Your task to perform on an android device: open app "TextNow: Call + Text Unlimited" (install if not already installed) Image 0: 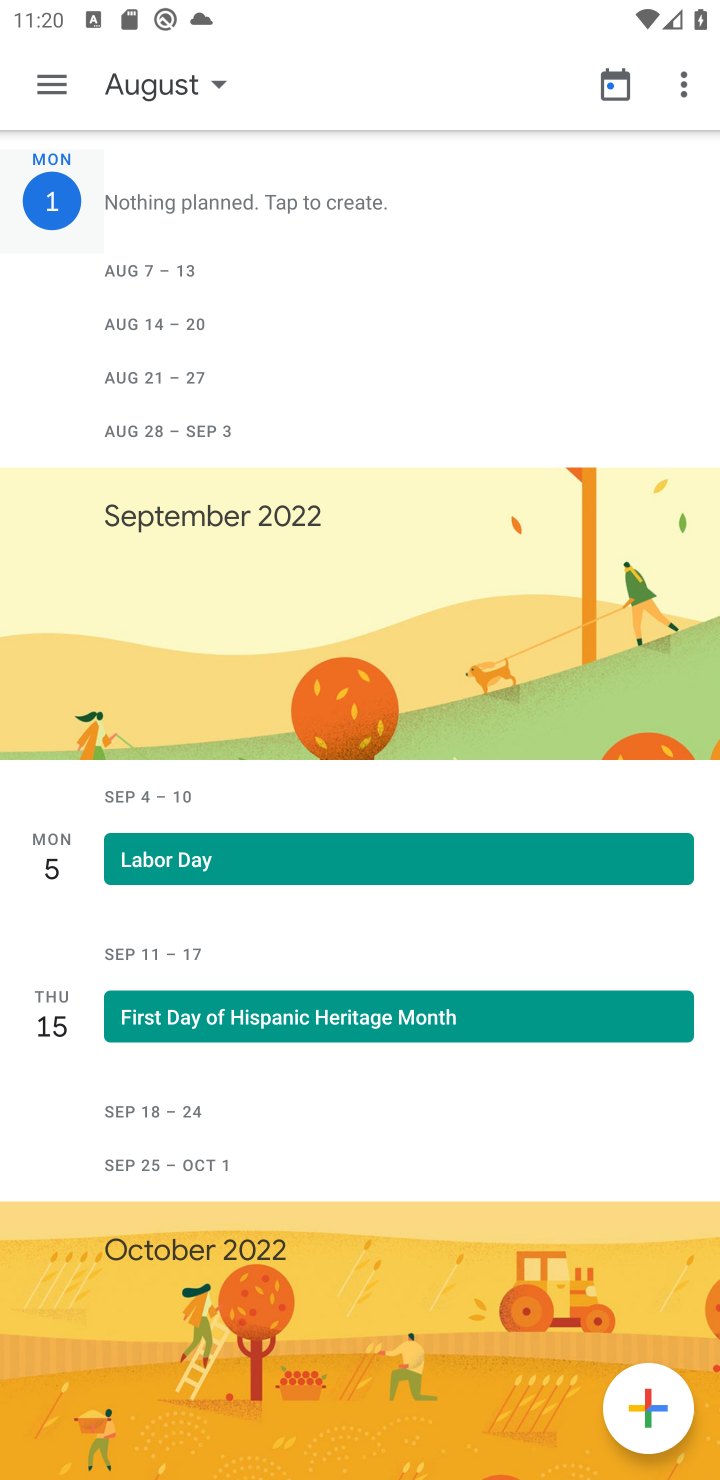
Step 0: press home button
Your task to perform on an android device: open app "TextNow: Call + Text Unlimited" (install if not already installed) Image 1: 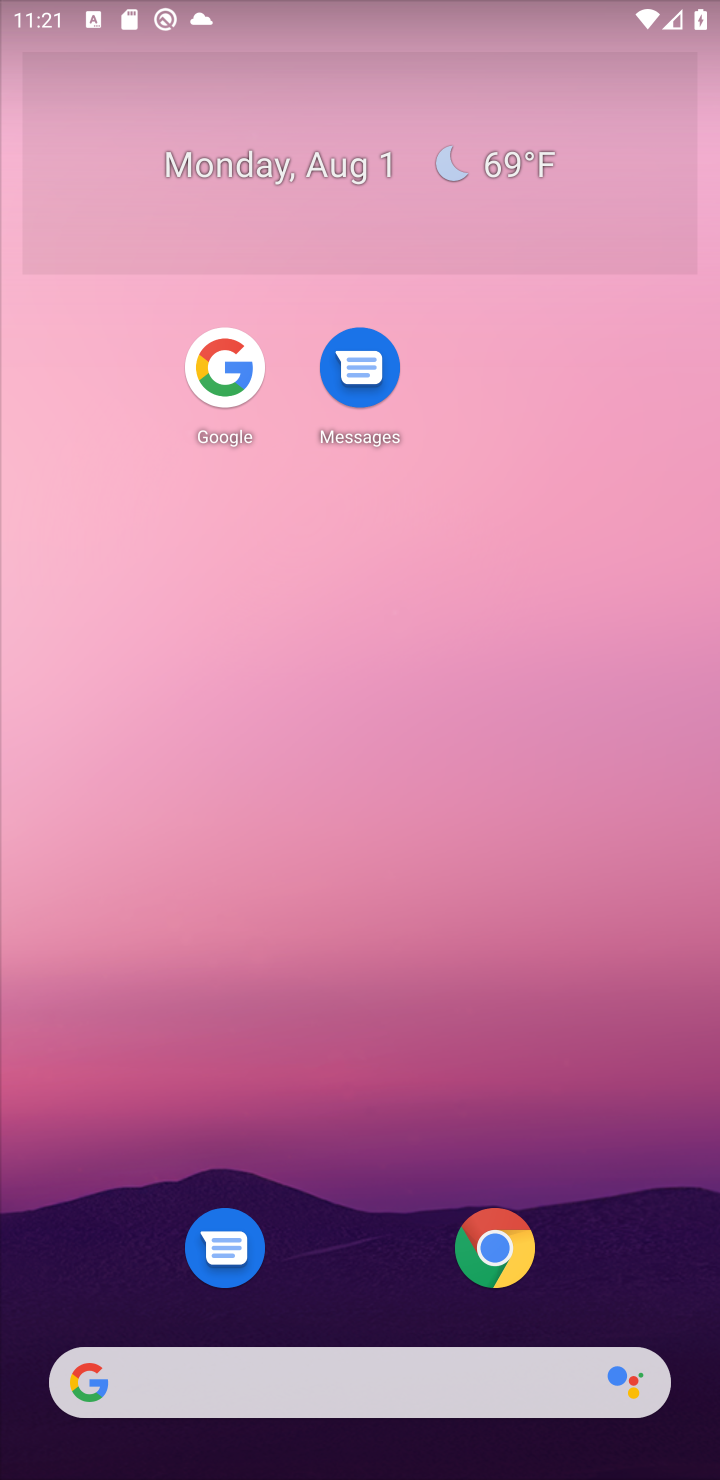
Step 1: drag from (372, 1144) to (476, 306)
Your task to perform on an android device: open app "TextNow: Call + Text Unlimited" (install if not already installed) Image 2: 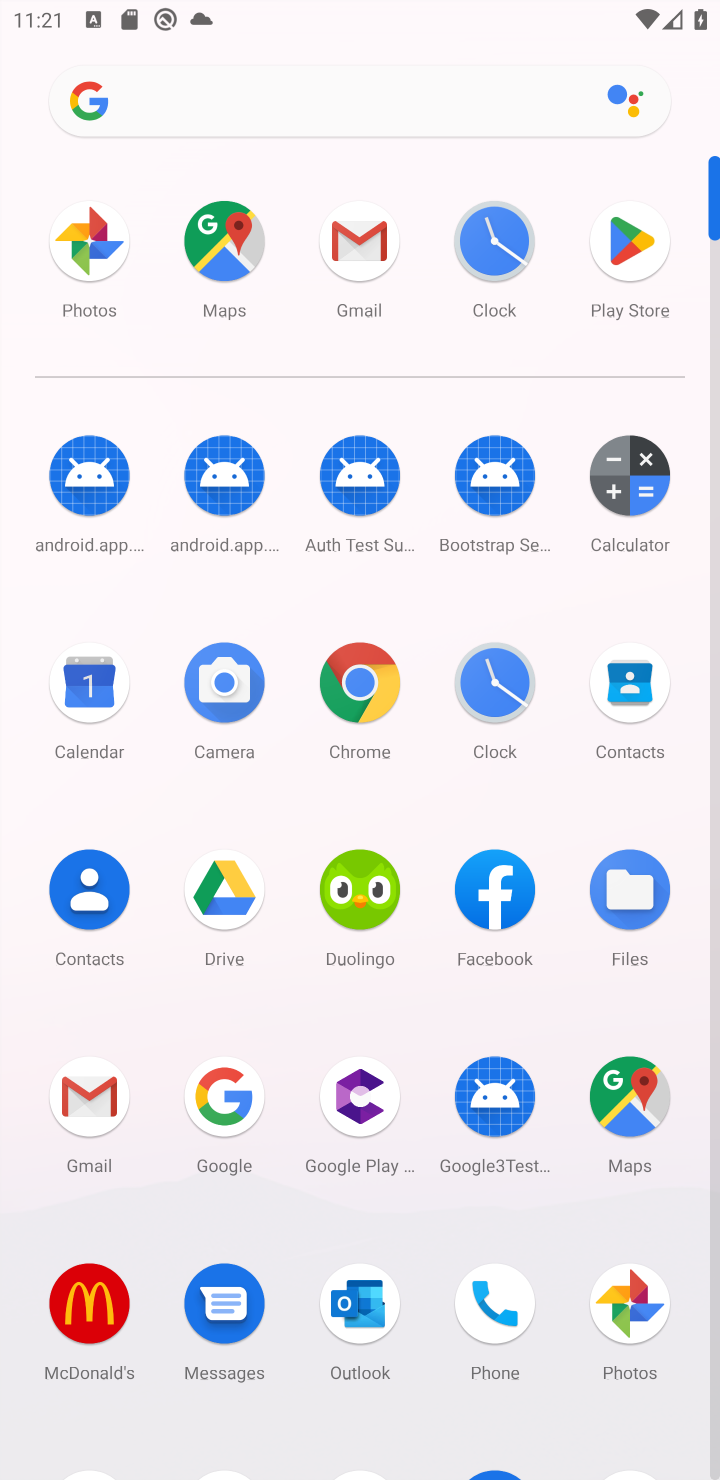
Step 2: drag from (287, 1213) to (314, 490)
Your task to perform on an android device: open app "TextNow: Call + Text Unlimited" (install if not already installed) Image 3: 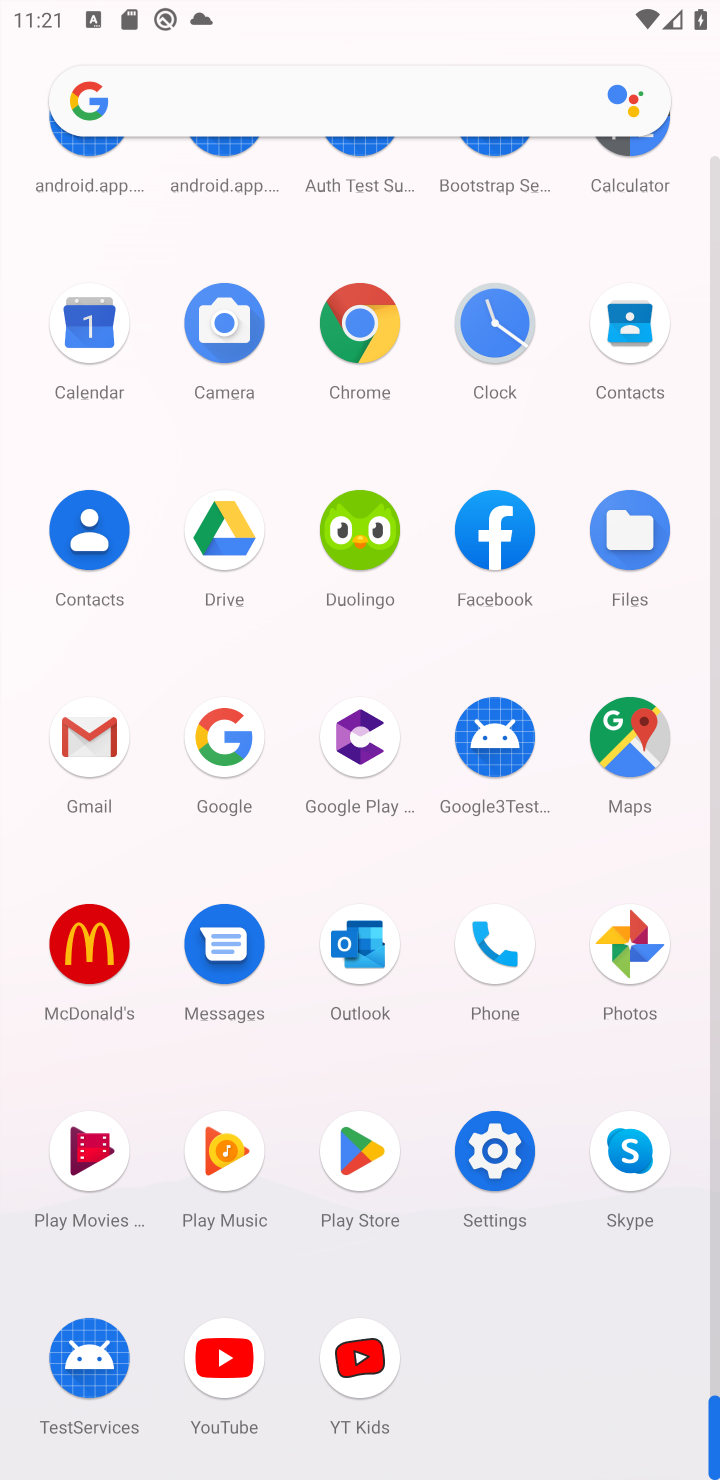
Step 3: click (356, 1151)
Your task to perform on an android device: open app "TextNow: Call + Text Unlimited" (install if not already installed) Image 4: 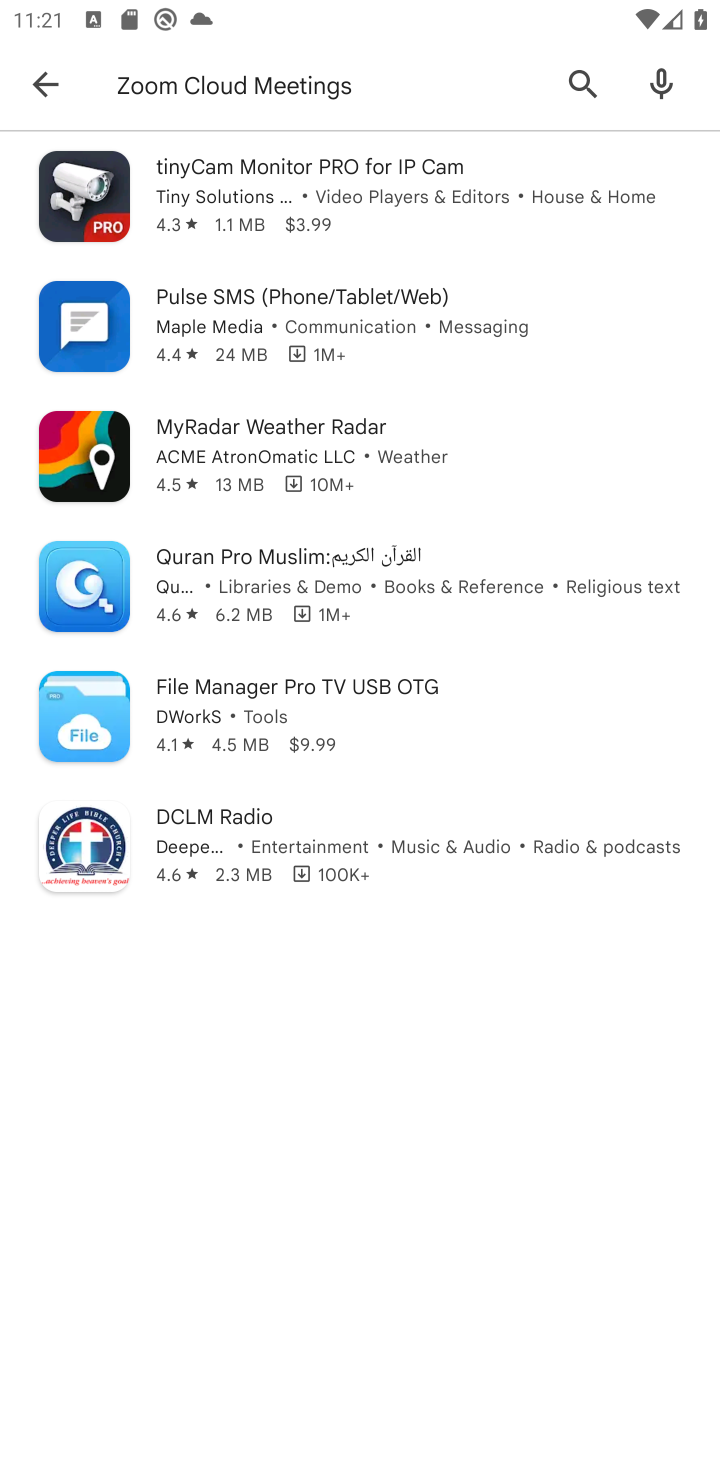
Step 4: click (416, 98)
Your task to perform on an android device: open app "TextNow: Call + Text Unlimited" (install if not already installed) Image 5: 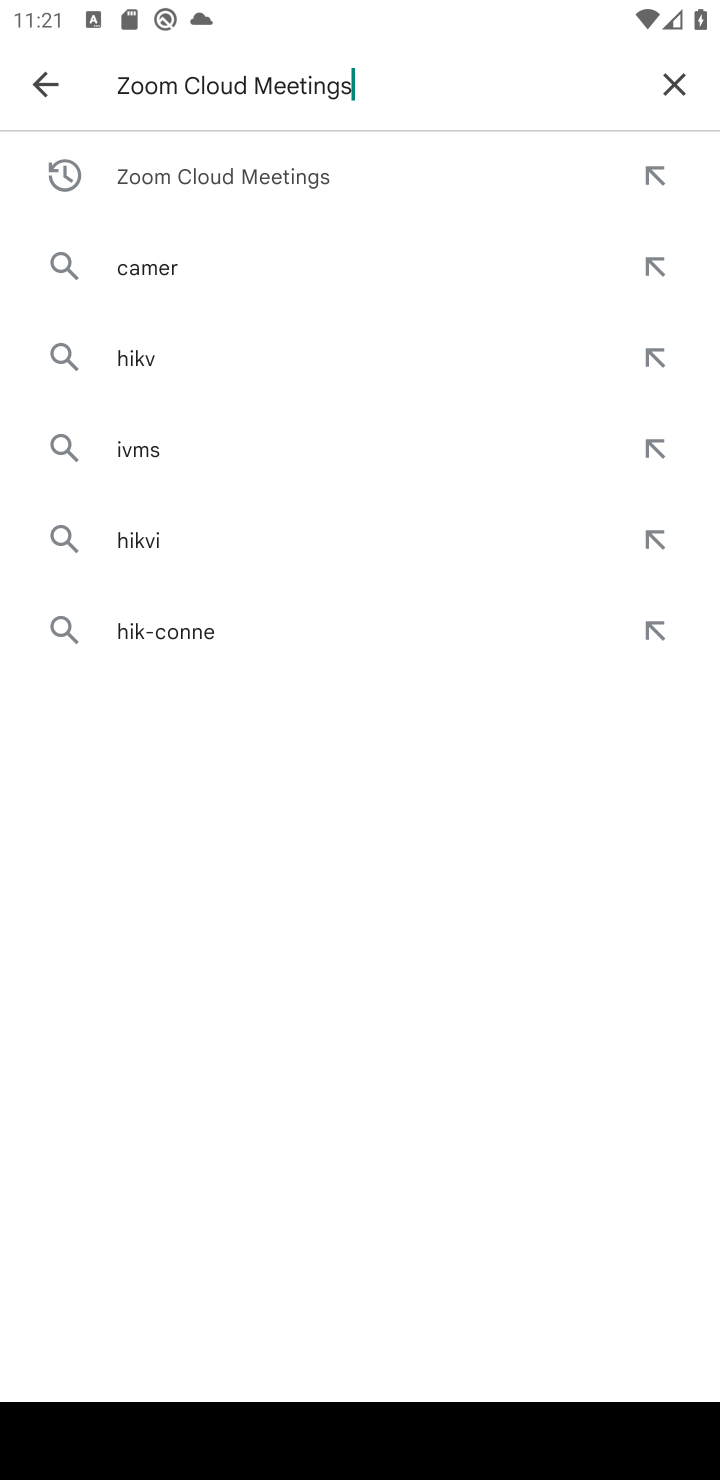
Step 5: click (678, 80)
Your task to perform on an android device: open app "TextNow: Call + Text Unlimited" (install if not already installed) Image 6: 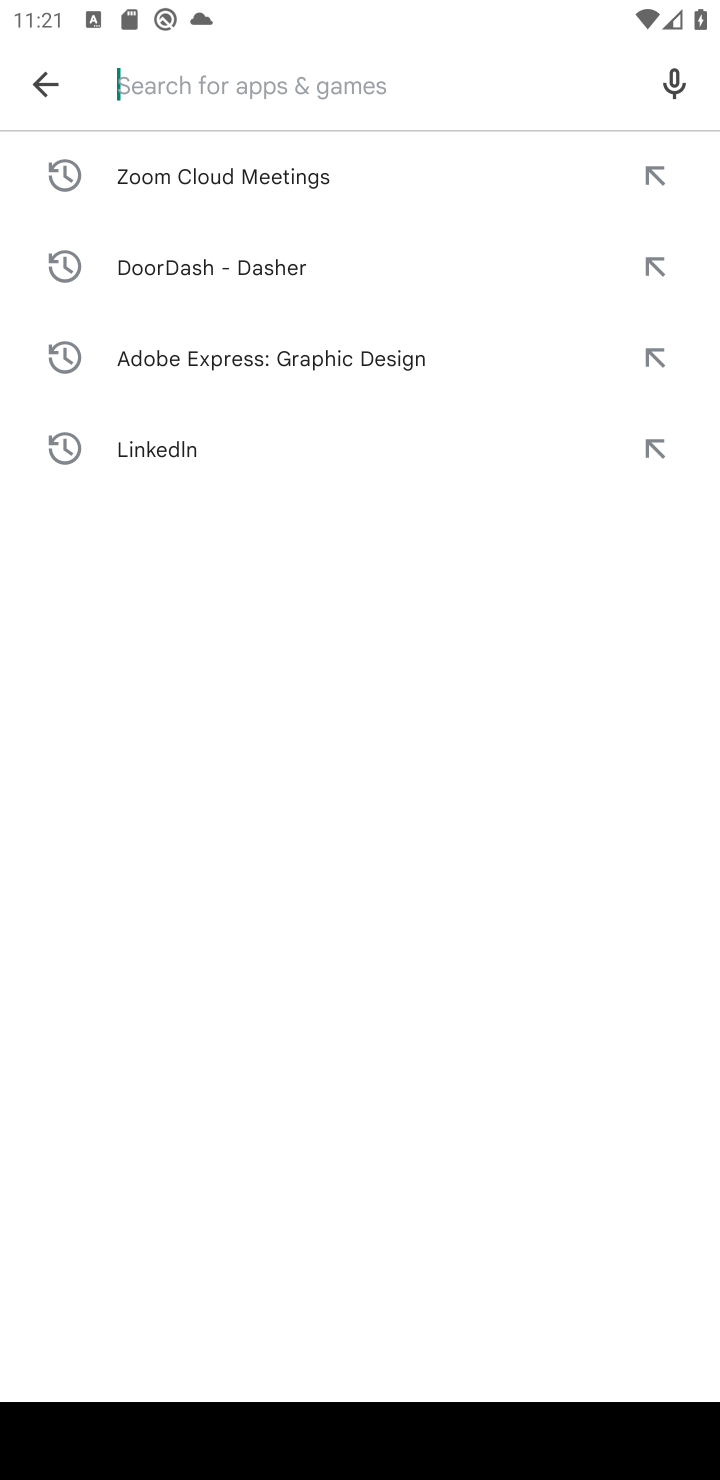
Step 6: type "TextNow: Call + Text Unlimited"
Your task to perform on an android device: open app "TextNow: Call + Text Unlimited" (install if not already installed) Image 7: 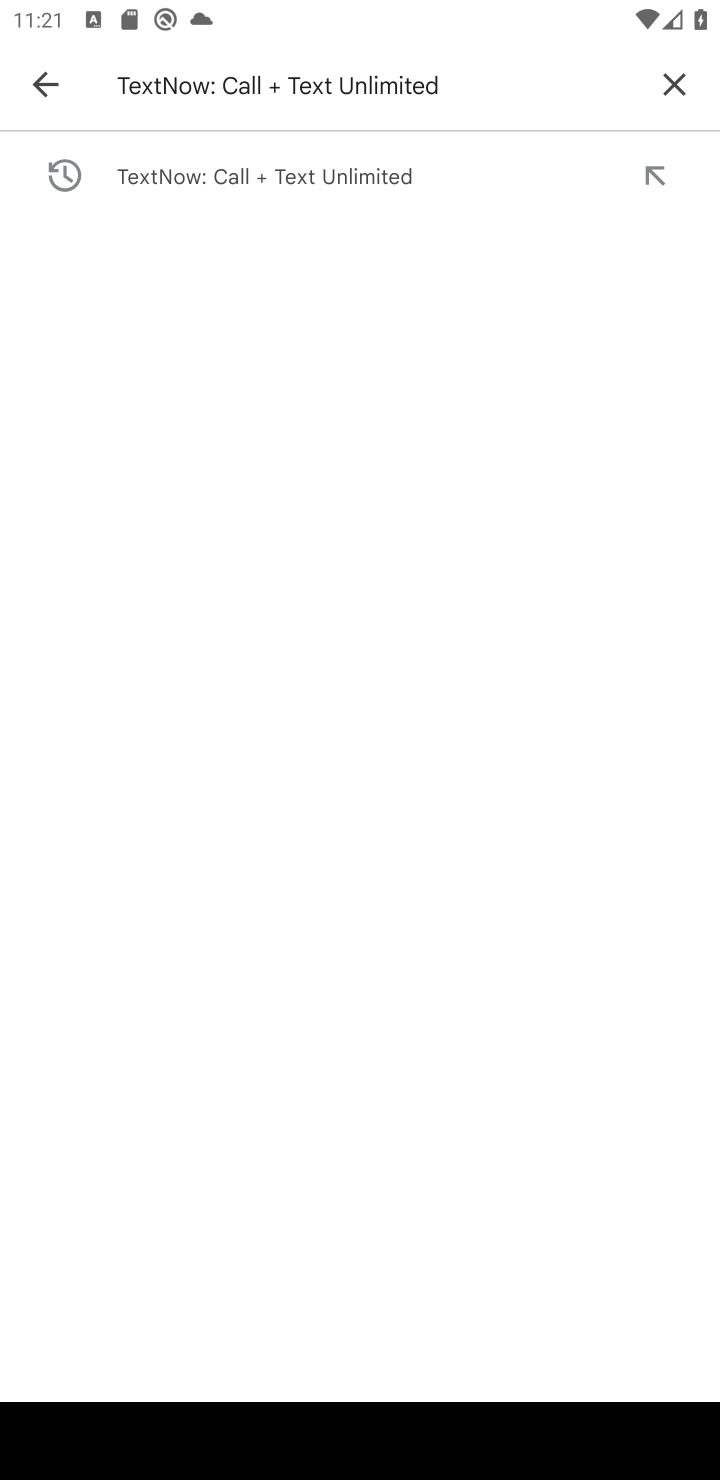
Step 7: press enter
Your task to perform on an android device: open app "TextNow: Call + Text Unlimited" (install if not already installed) Image 8: 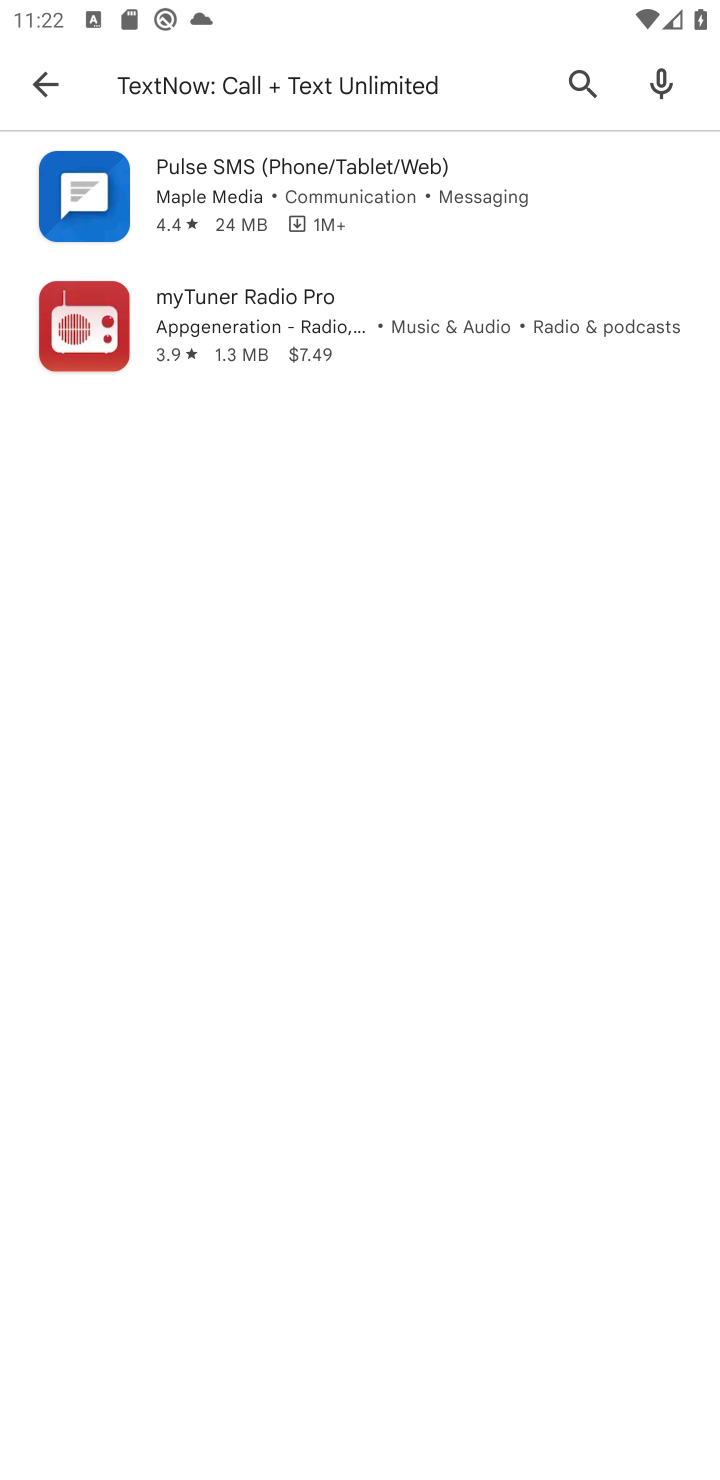
Step 8: task complete